Your task to perform on an android device: turn on showing notifications on the lock screen Image 0: 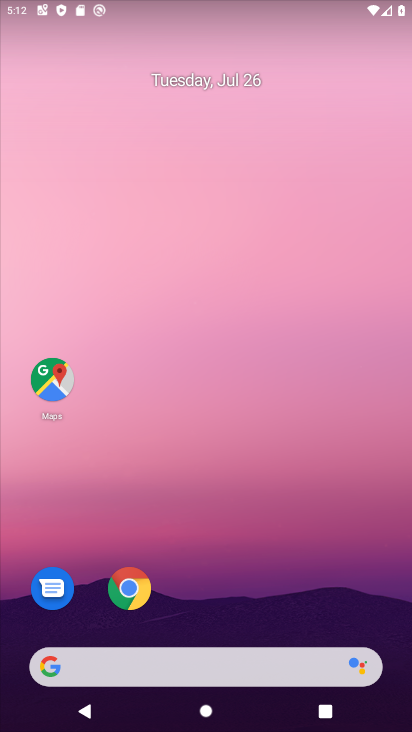
Step 0: drag from (208, 674) to (224, 106)
Your task to perform on an android device: turn on showing notifications on the lock screen Image 1: 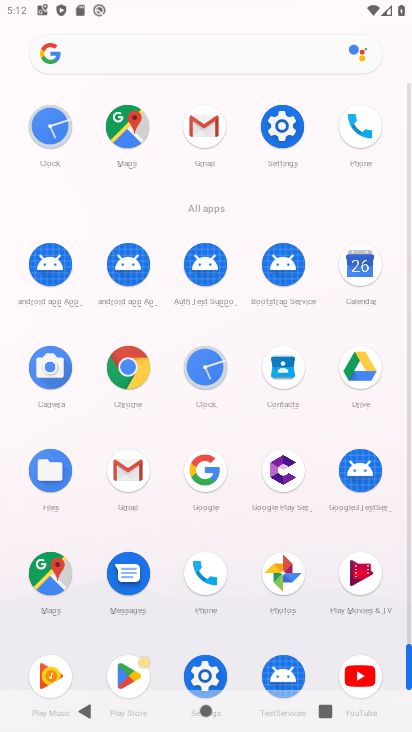
Step 1: click (294, 157)
Your task to perform on an android device: turn on showing notifications on the lock screen Image 2: 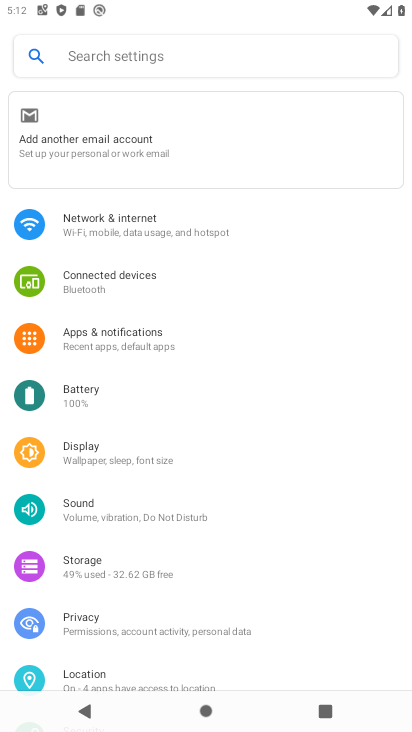
Step 2: click (157, 341)
Your task to perform on an android device: turn on showing notifications on the lock screen Image 3: 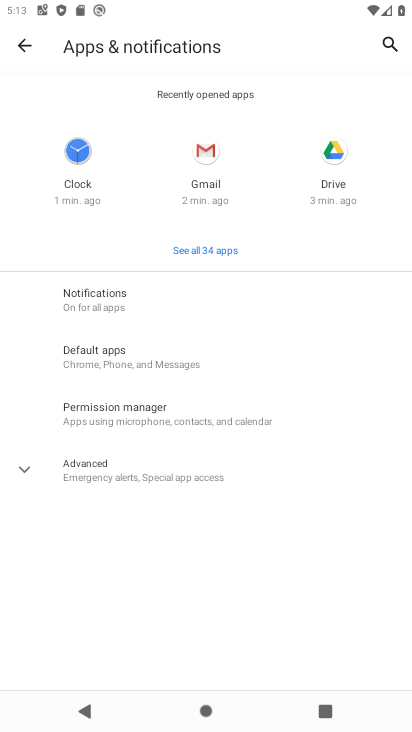
Step 3: click (121, 303)
Your task to perform on an android device: turn on showing notifications on the lock screen Image 4: 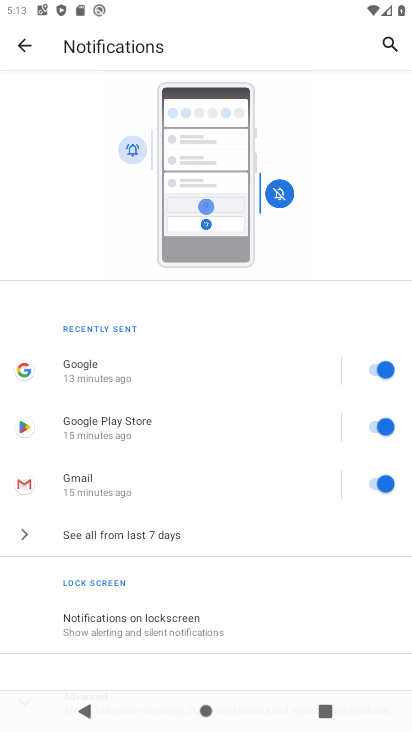
Step 4: drag from (158, 575) to (192, 413)
Your task to perform on an android device: turn on showing notifications on the lock screen Image 5: 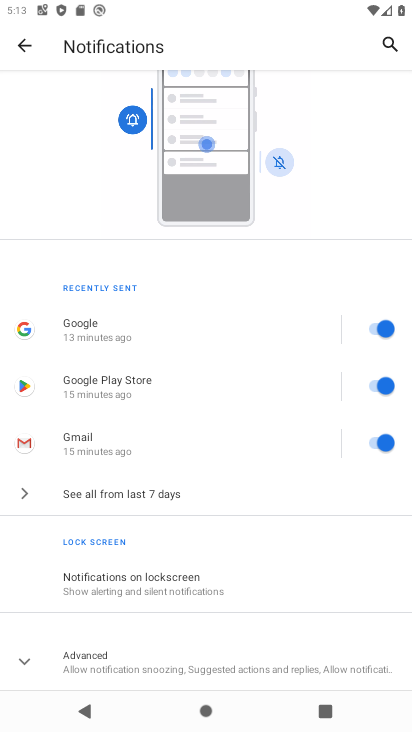
Step 5: click (147, 577)
Your task to perform on an android device: turn on showing notifications on the lock screen Image 6: 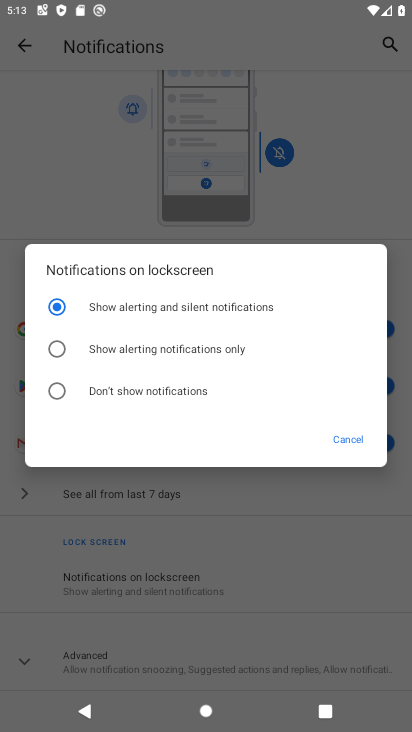
Step 6: task complete